Your task to perform on an android device: Go to network settings Image 0: 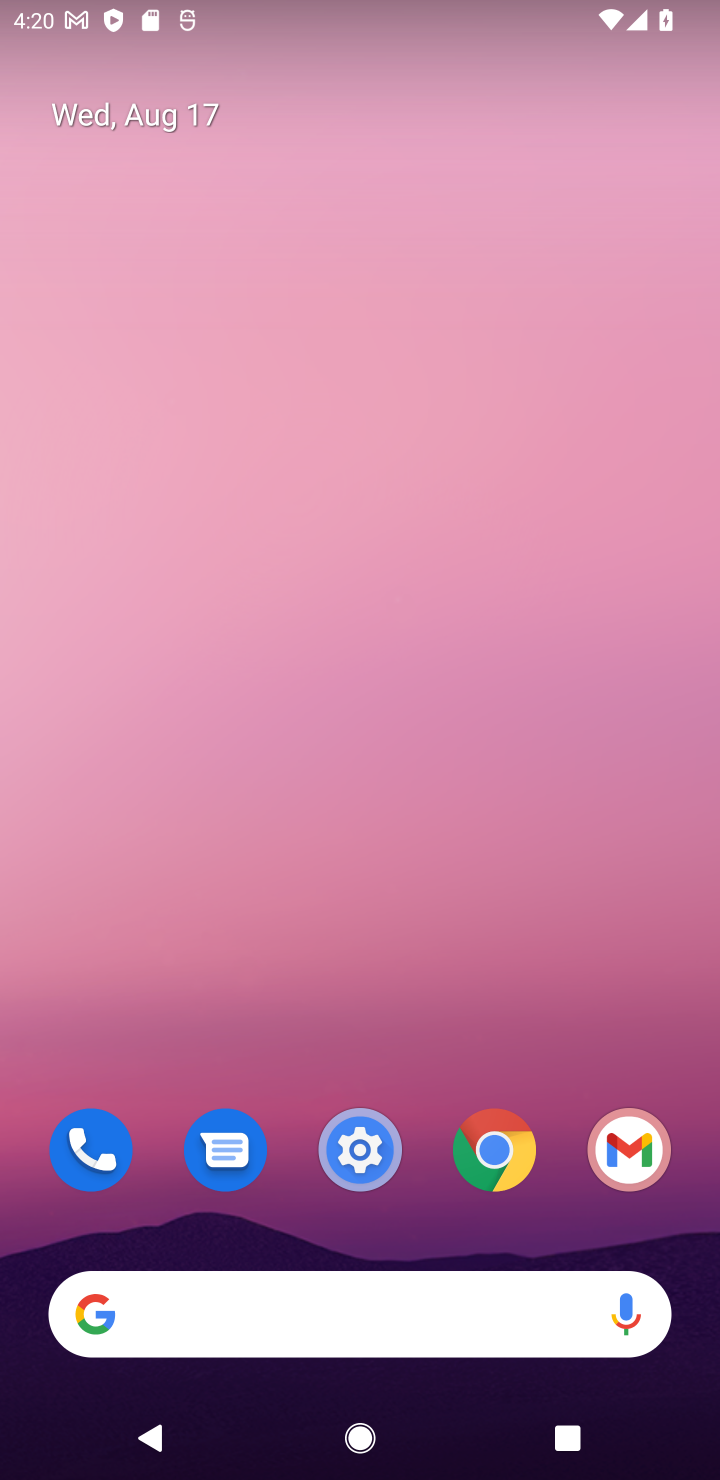
Step 0: drag from (594, 1174) to (395, 8)
Your task to perform on an android device: Go to network settings Image 1: 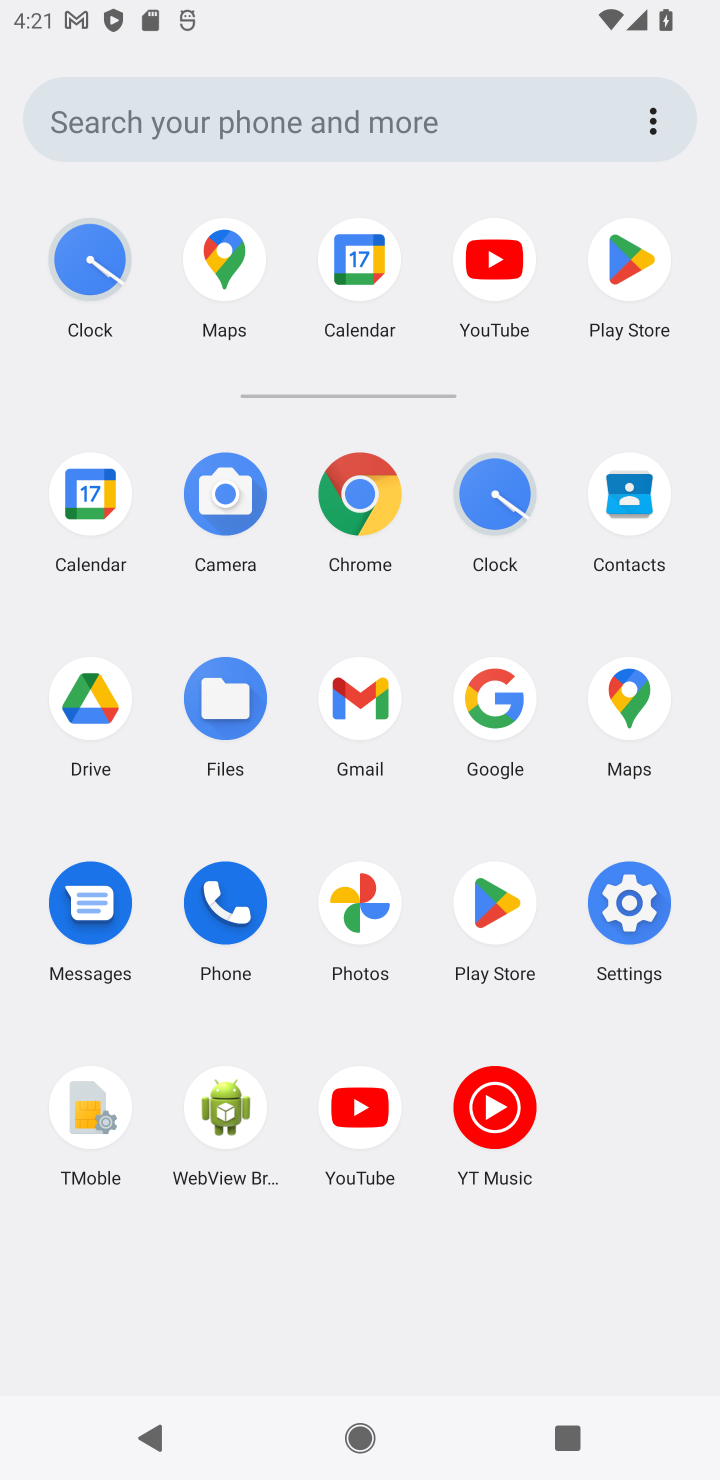
Step 1: click (615, 937)
Your task to perform on an android device: Go to network settings Image 2: 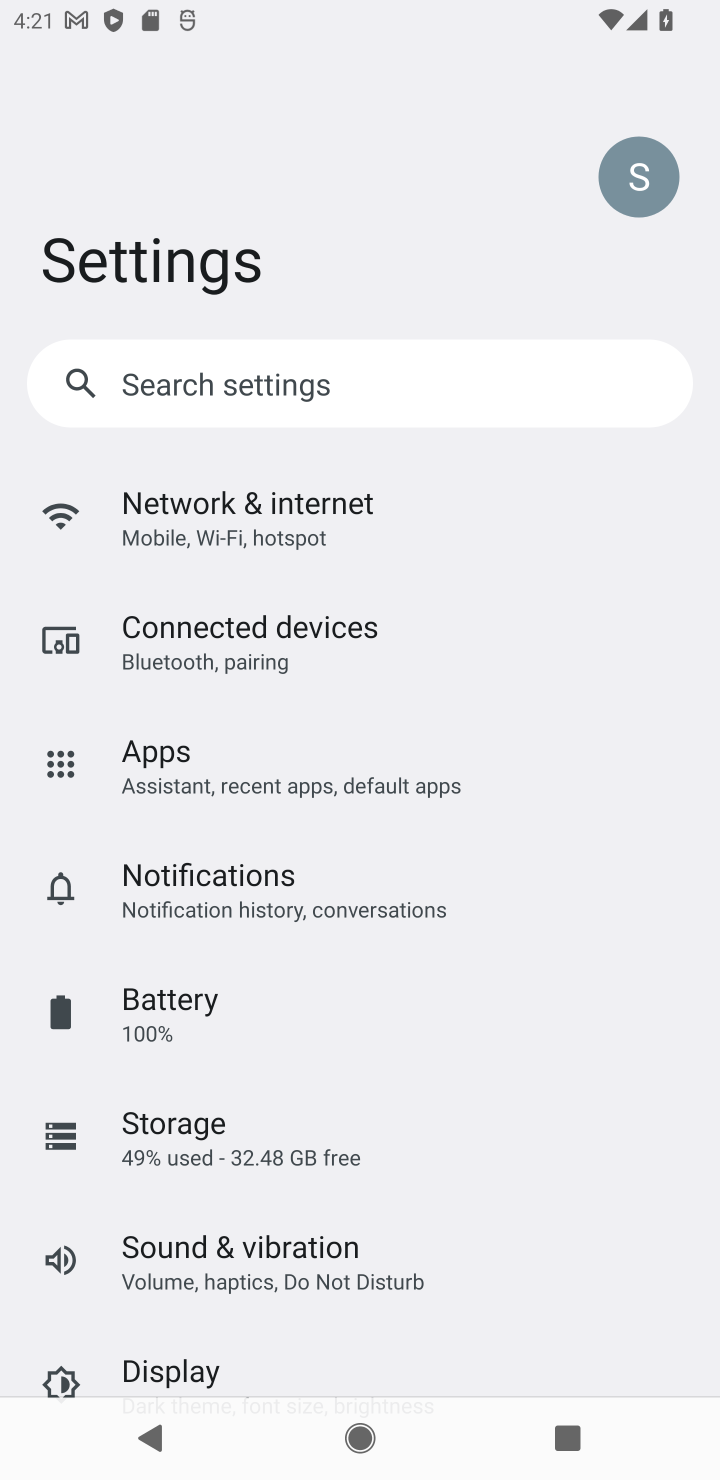
Step 2: click (230, 553)
Your task to perform on an android device: Go to network settings Image 3: 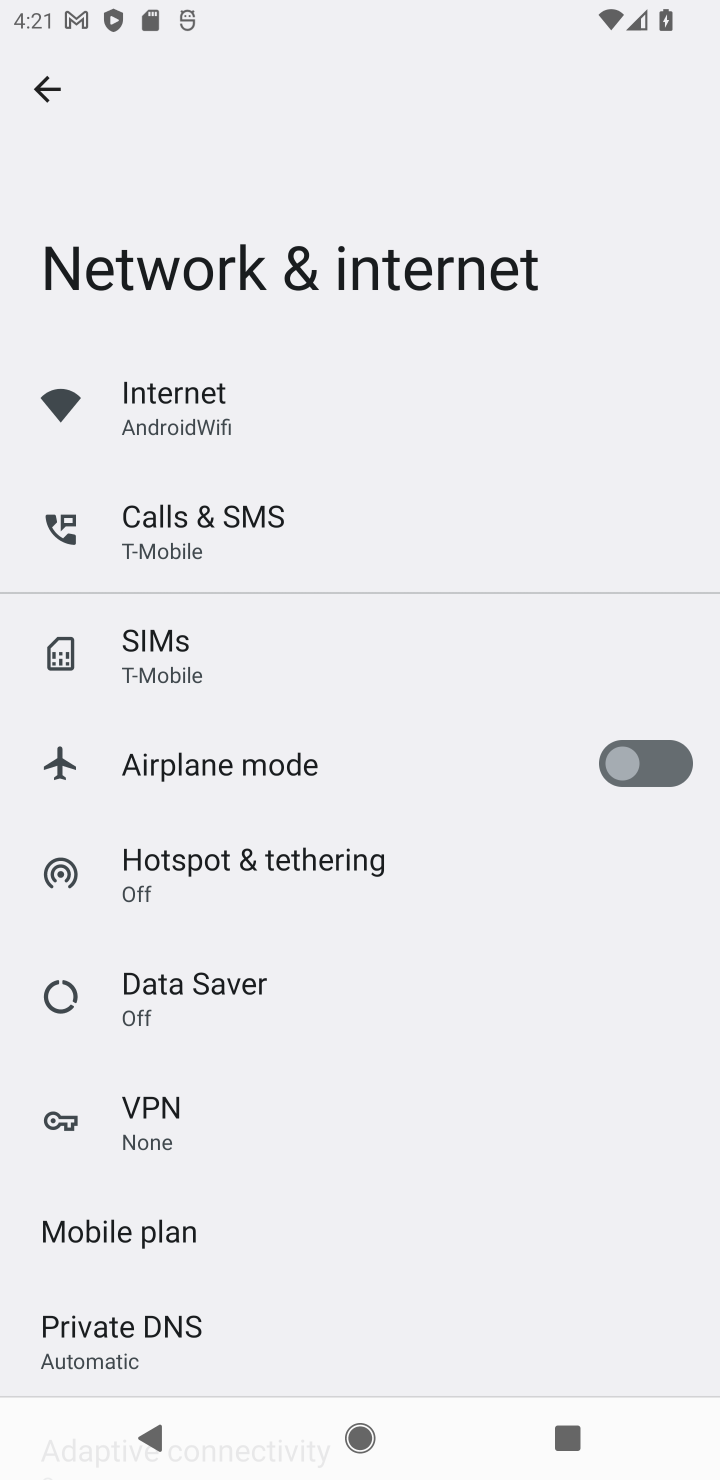
Step 3: task complete